Your task to perform on an android device: View the shopping cart on bestbuy. Image 0: 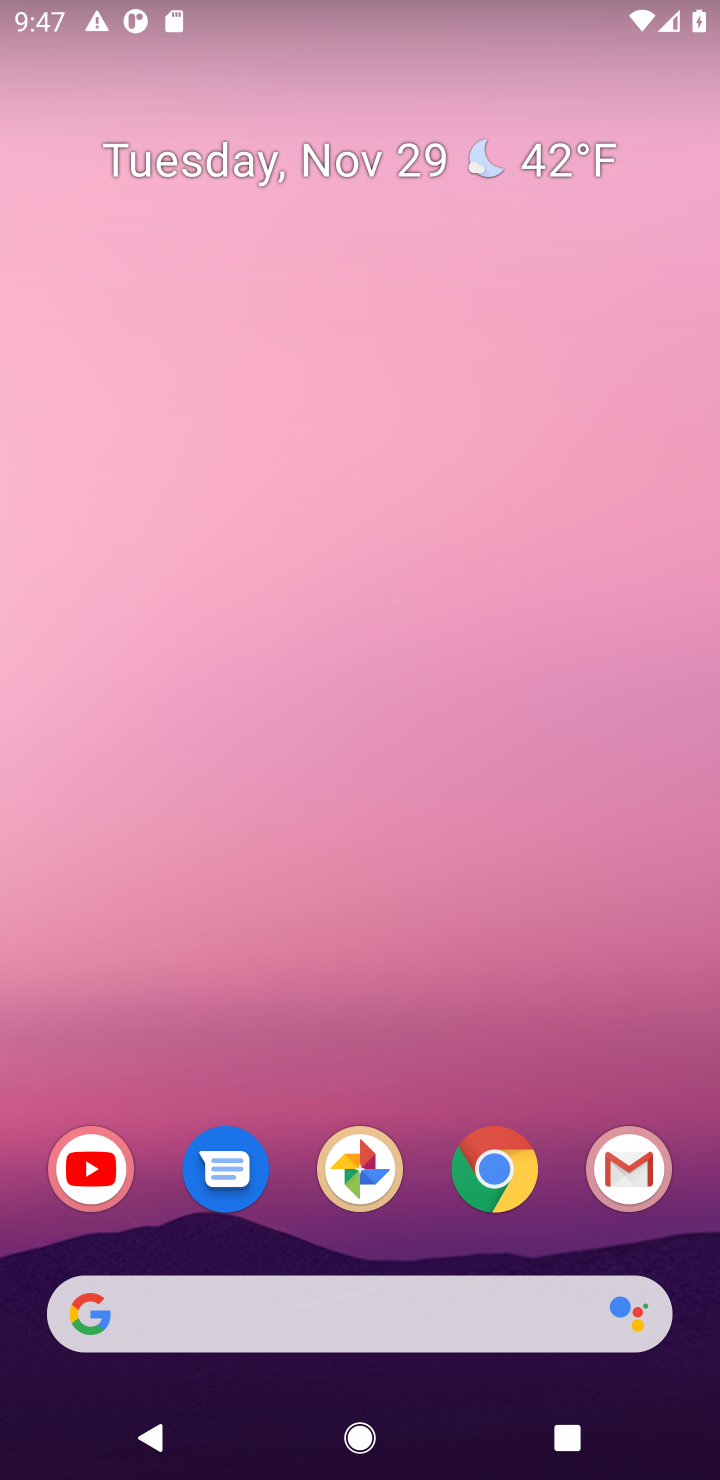
Step 0: press home button
Your task to perform on an android device: View the shopping cart on bestbuy. Image 1: 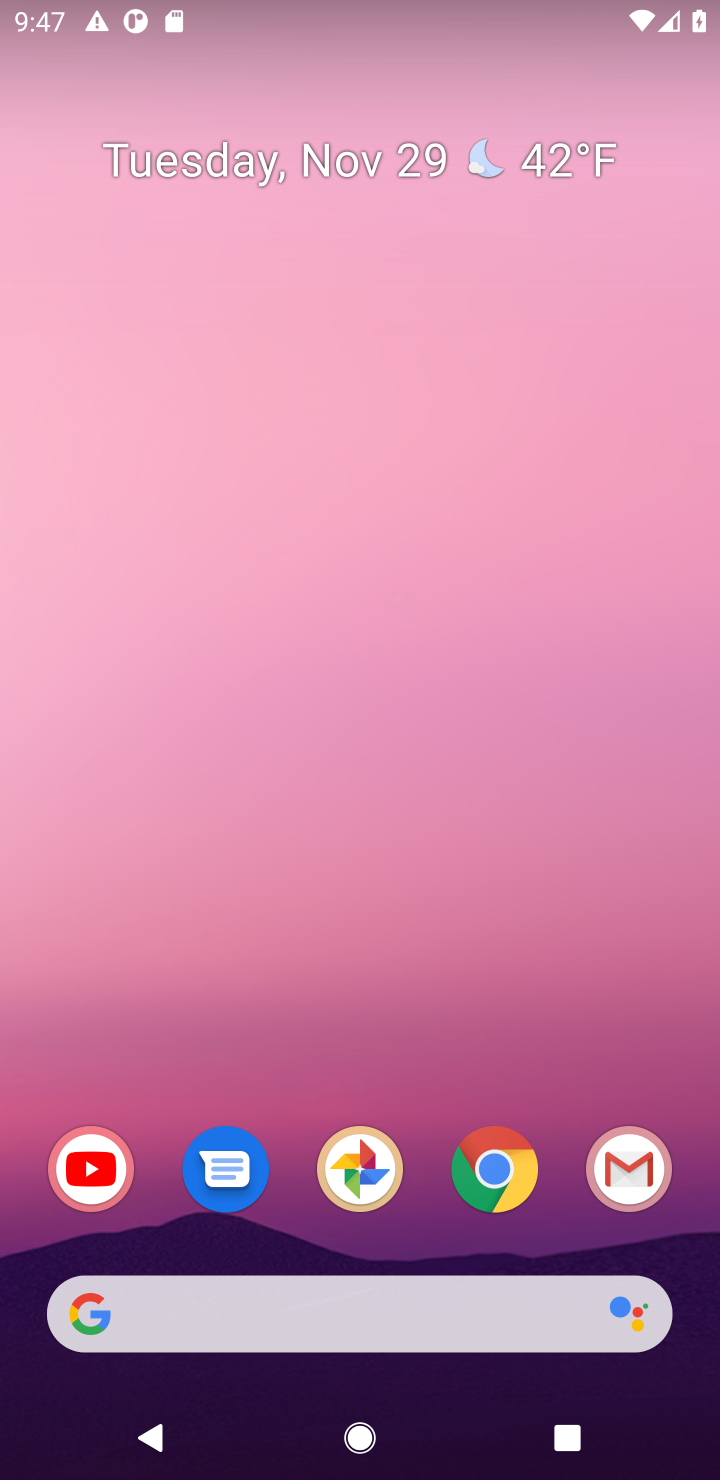
Step 1: click (343, 1342)
Your task to perform on an android device: View the shopping cart on bestbuy. Image 2: 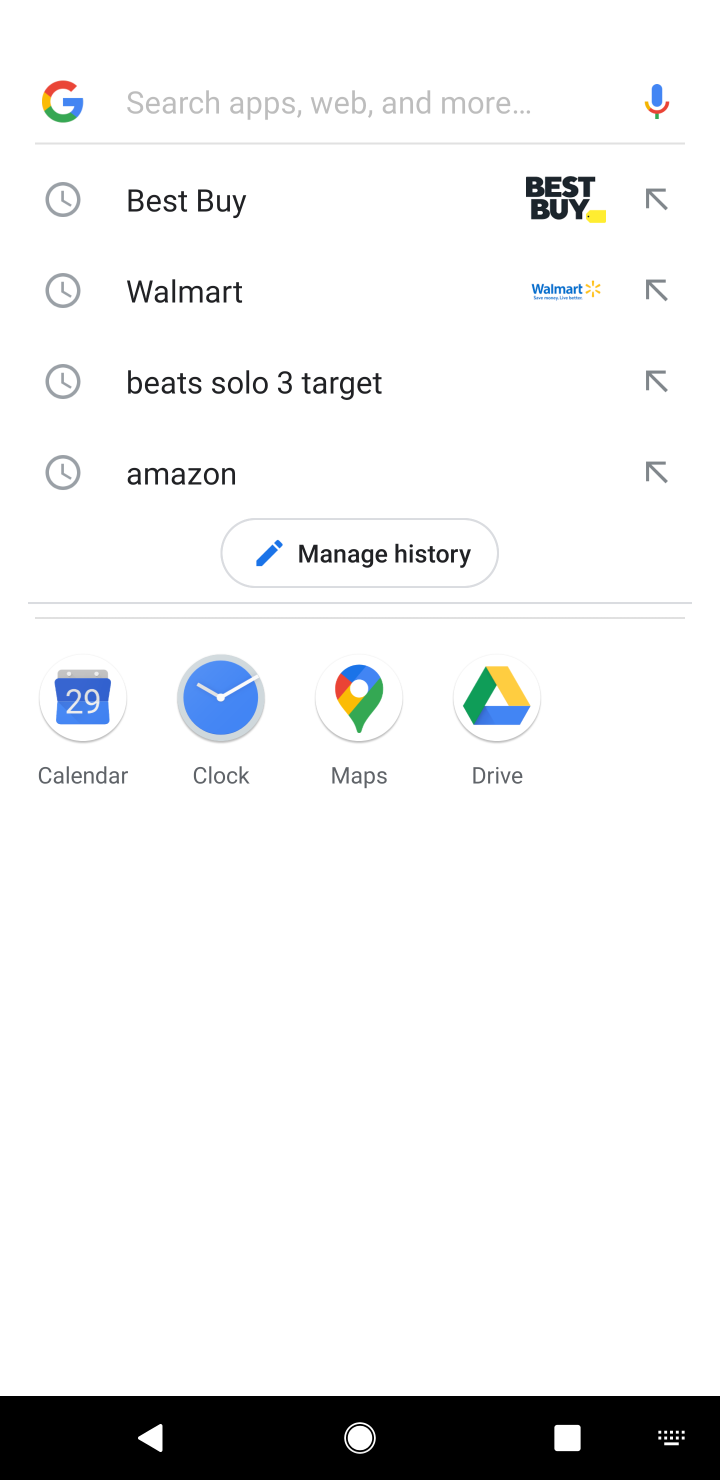
Step 2: type "bestbuy"
Your task to perform on an android device: View the shopping cart on bestbuy. Image 3: 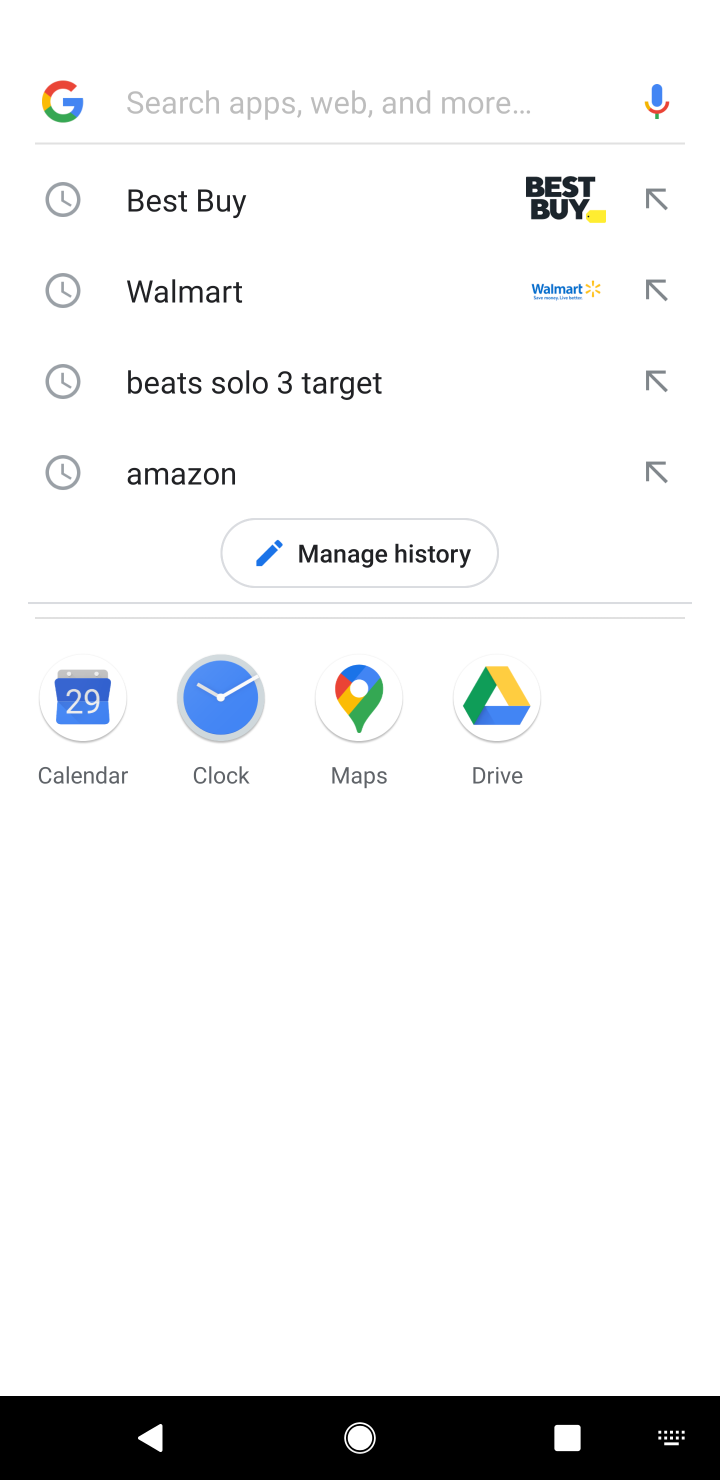
Step 3: click (277, 187)
Your task to perform on an android device: View the shopping cart on bestbuy. Image 4: 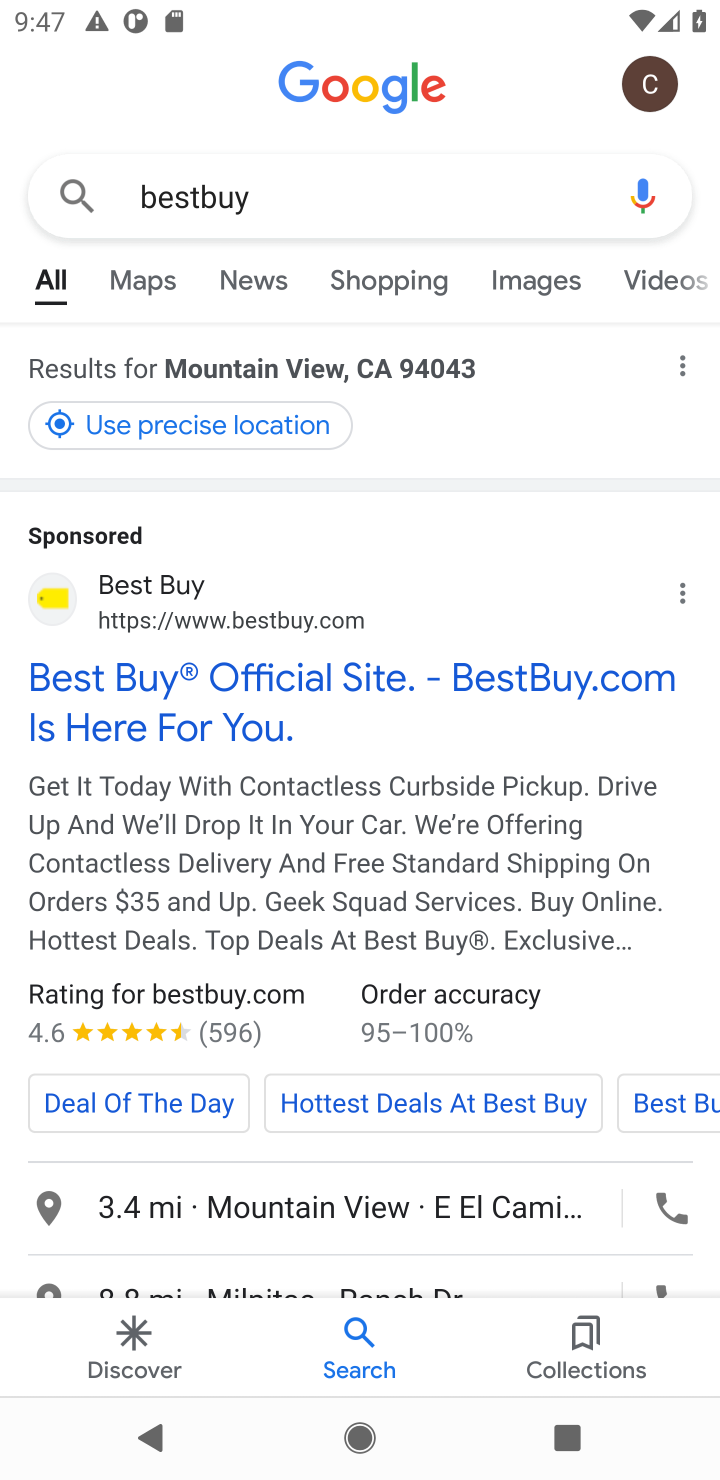
Step 4: click (149, 638)
Your task to perform on an android device: View the shopping cart on bestbuy. Image 5: 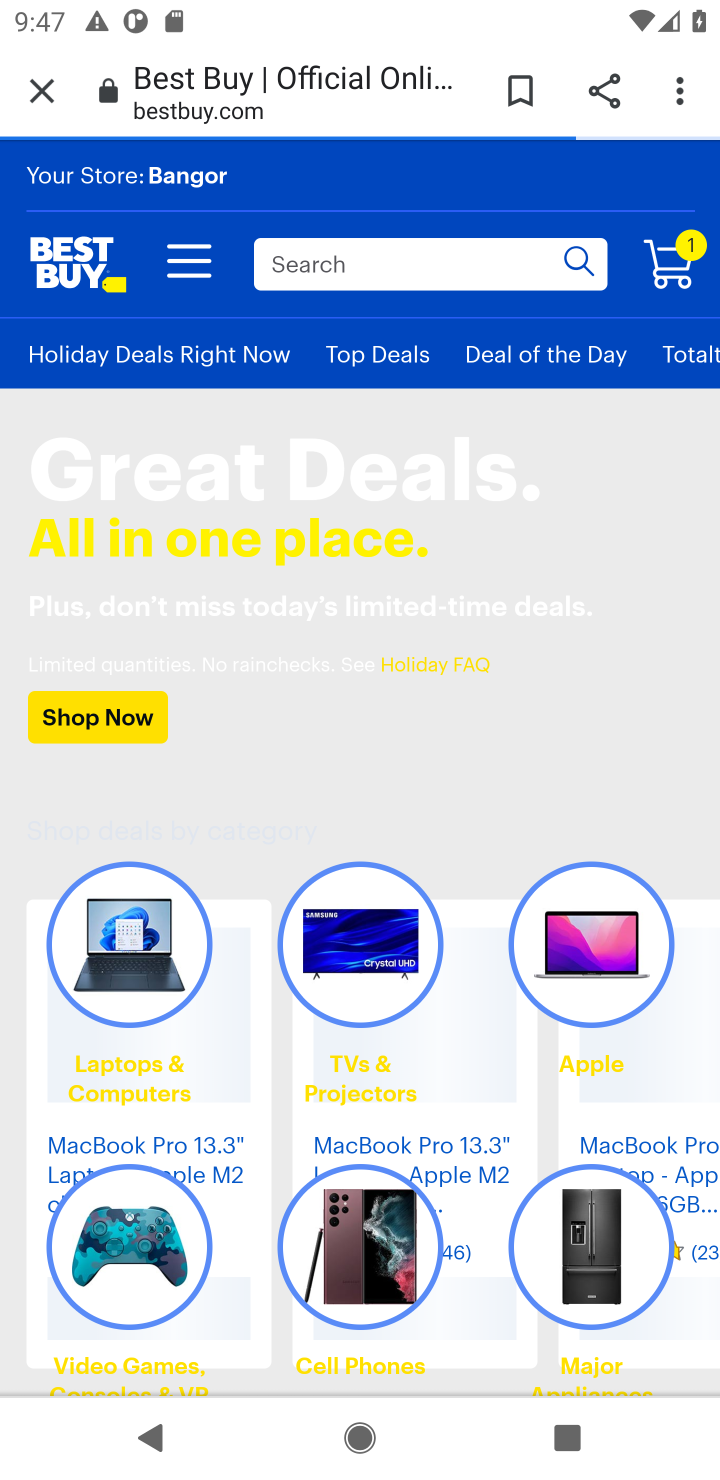
Step 5: click (303, 250)
Your task to perform on an android device: View the shopping cart on bestbuy. Image 6: 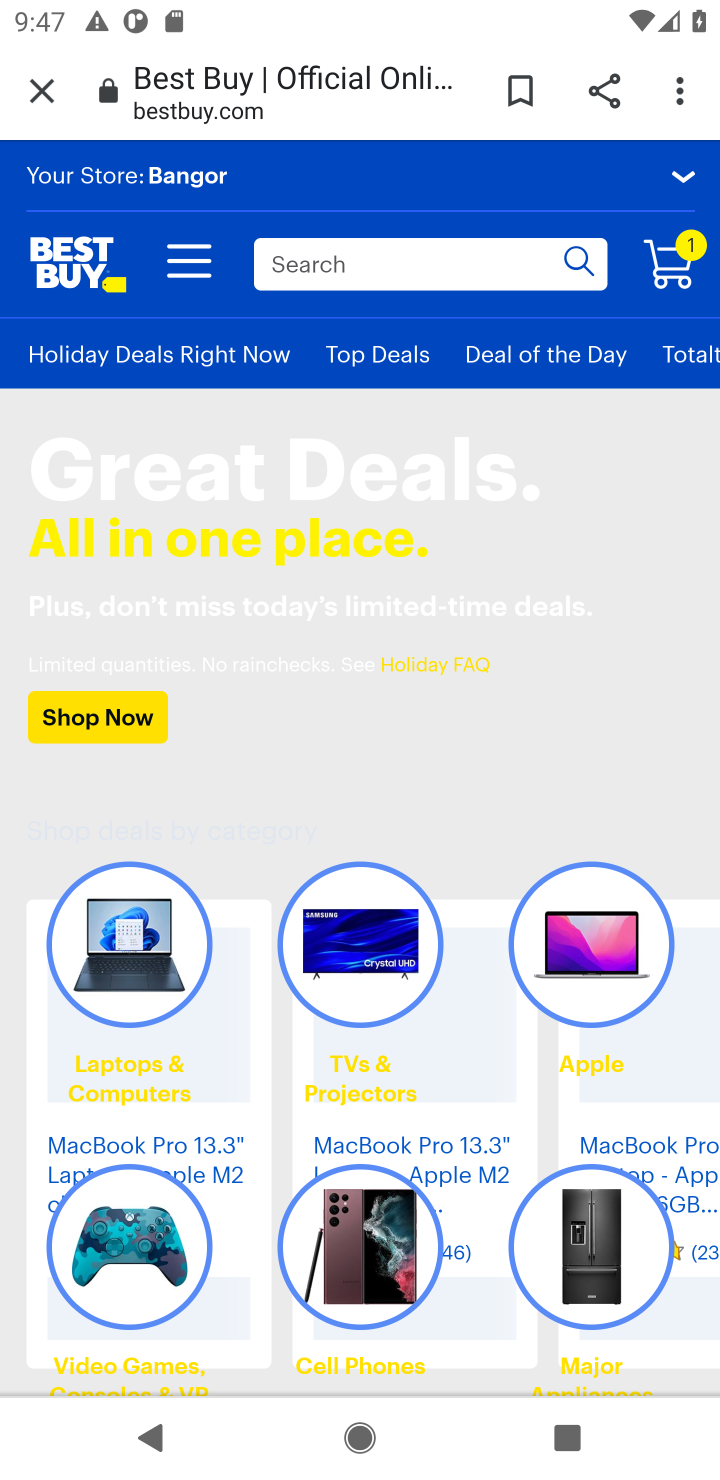
Step 6: click (672, 280)
Your task to perform on an android device: View the shopping cart on bestbuy. Image 7: 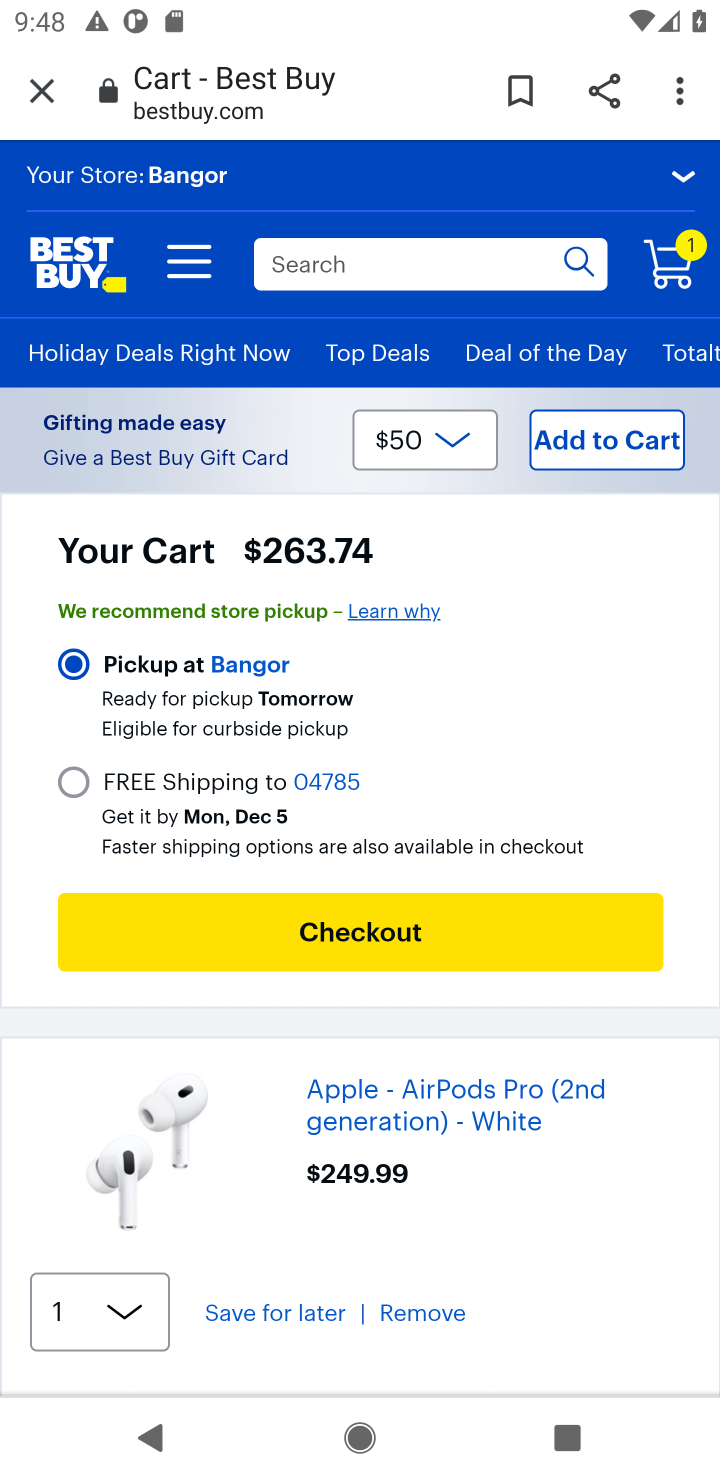
Step 7: task complete